Your task to perform on an android device: Open Google Chrome Image 0: 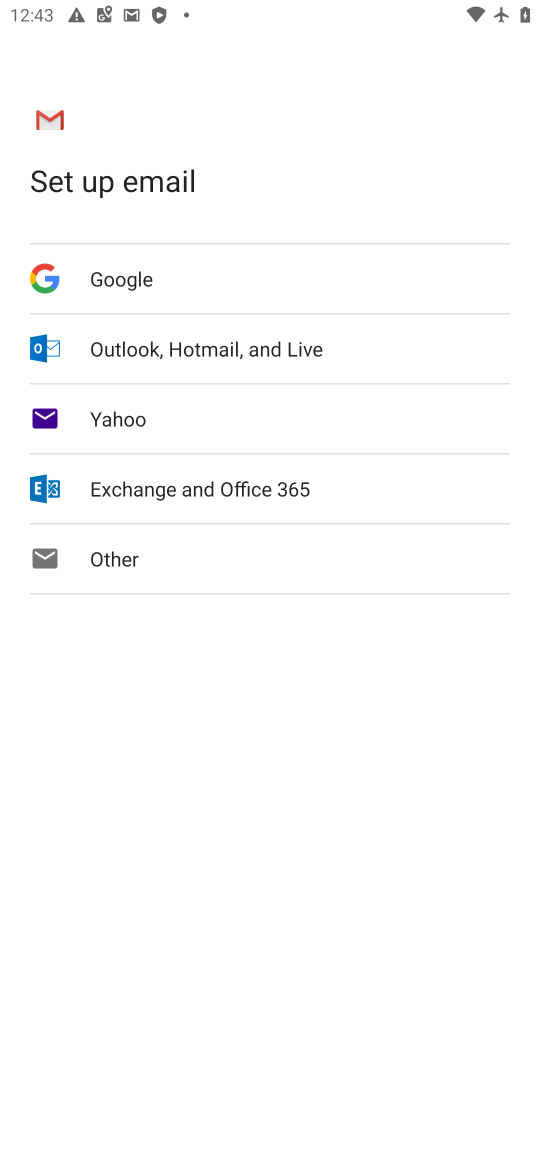
Step 0: press home button
Your task to perform on an android device: Open Google Chrome Image 1: 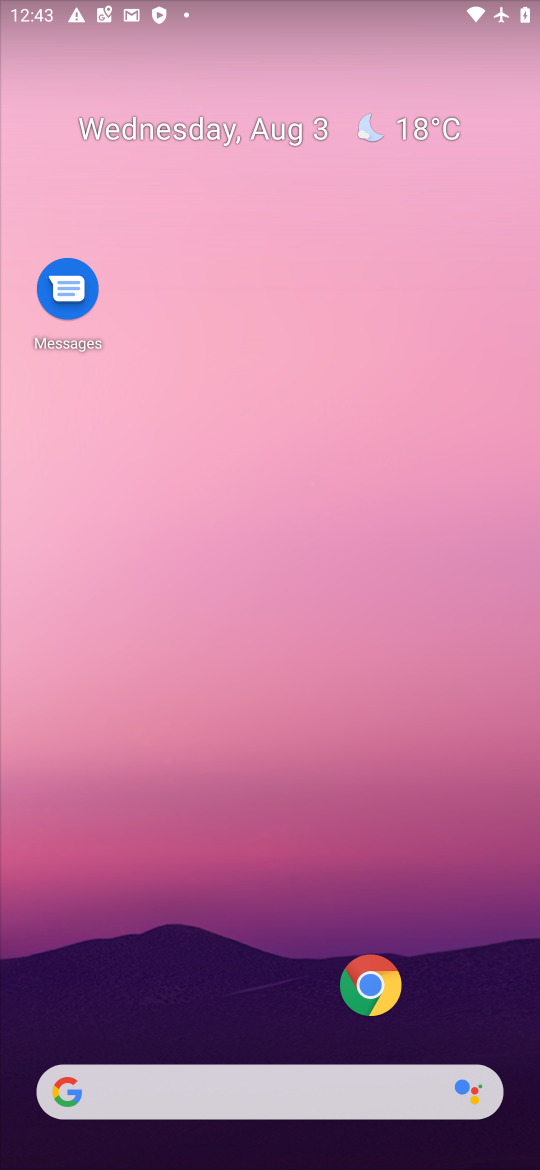
Step 1: click (358, 988)
Your task to perform on an android device: Open Google Chrome Image 2: 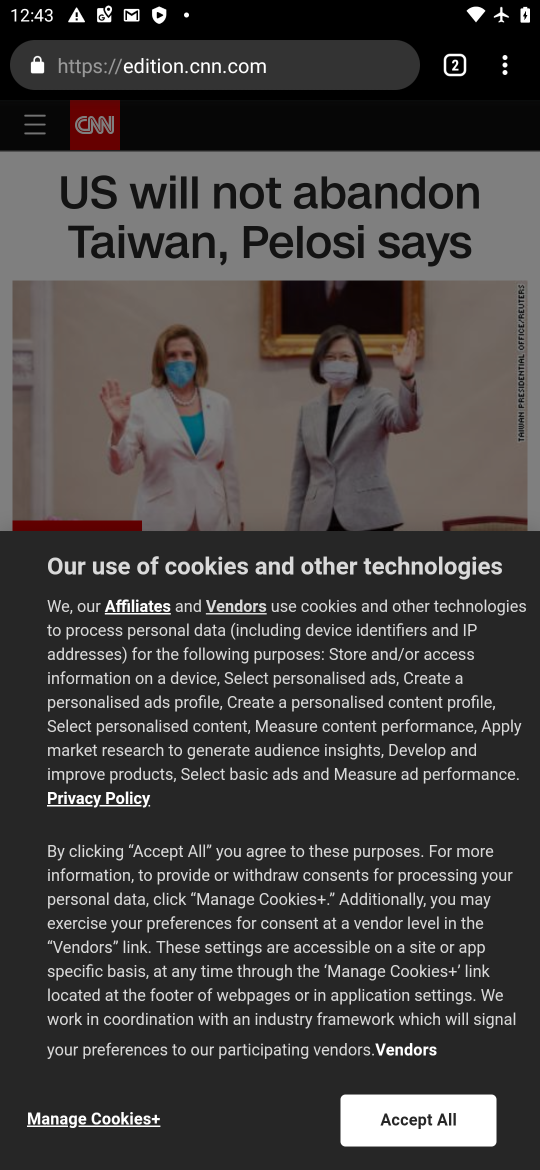
Step 2: task complete